Your task to perform on an android device: delete the emails in spam in the gmail app Image 0: 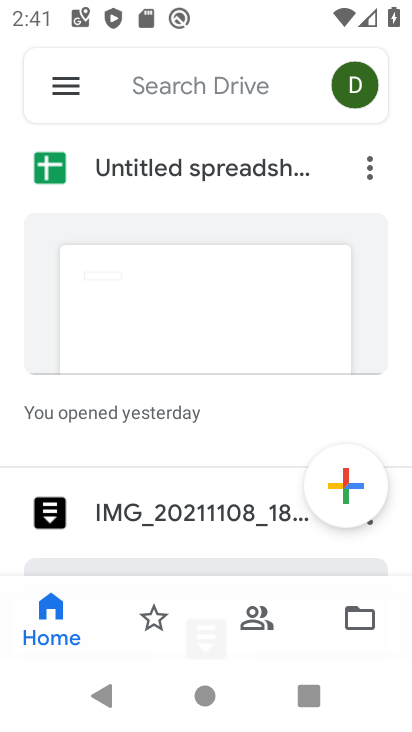
Step 0: press home button
Your task to perform on an android device: delete the emails in spam in the gmail app Image 1: 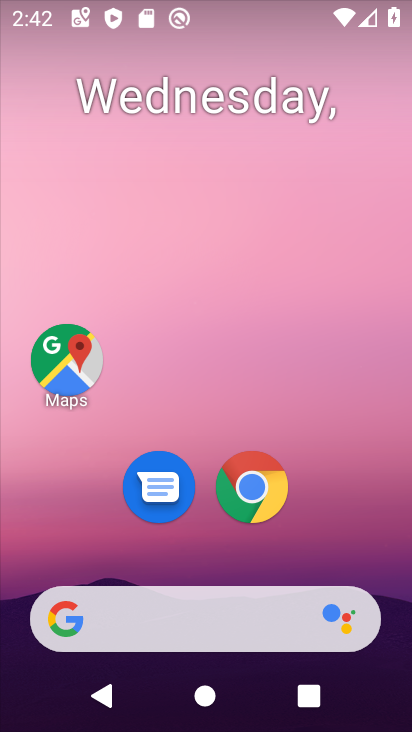
Step 1: drag from (322, 543) to (208, 21)
Your task to perform on an android device: delete the emails in spam in the gmail app Image 2: 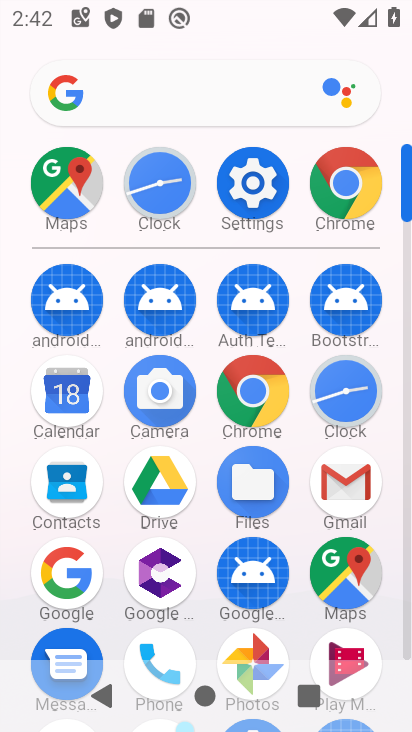
Step 2: click (342, 474)
Your task to perform on an android device: delete the emails in spam in the gmail app Image 3: 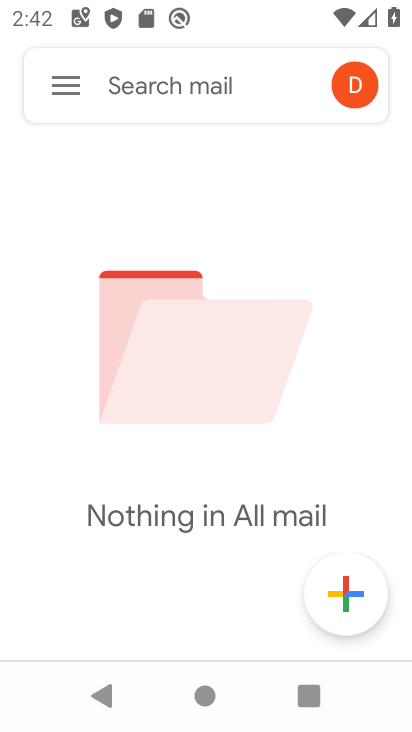
Step 3: click (71, 83)
Your task to perform on an android device: delete the emails in spam in the gmail app Image 4: 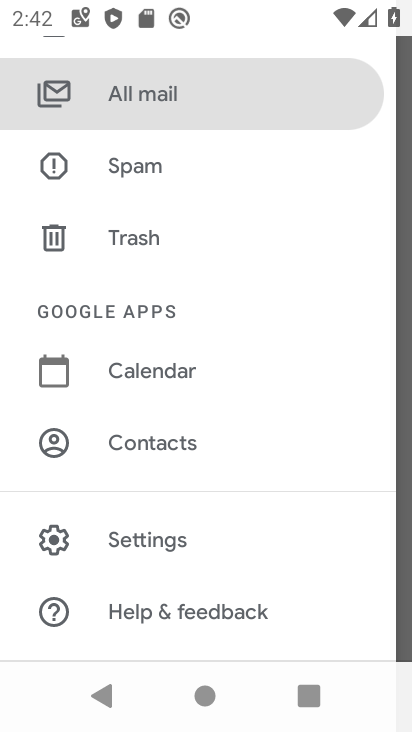
Step 4: click (144, 162)
Your task to perform on an android device: delete the emails in spam in the gmail app Image 5: 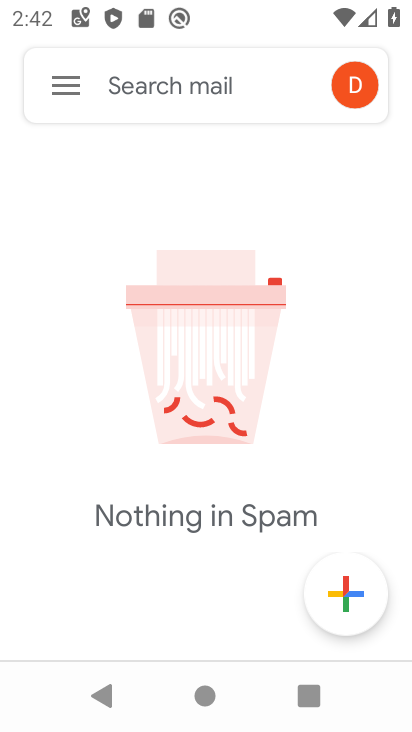
Step 5: task complete